Your task to perform on an android device: find snoozed emails in the gmail app Image 0: 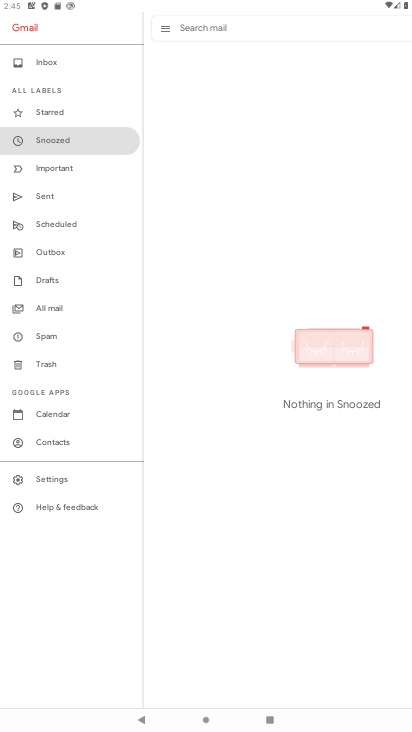
Step 0: press home button
Your task to perform on an android device: find snoozed emails in the gmail app Image 1: 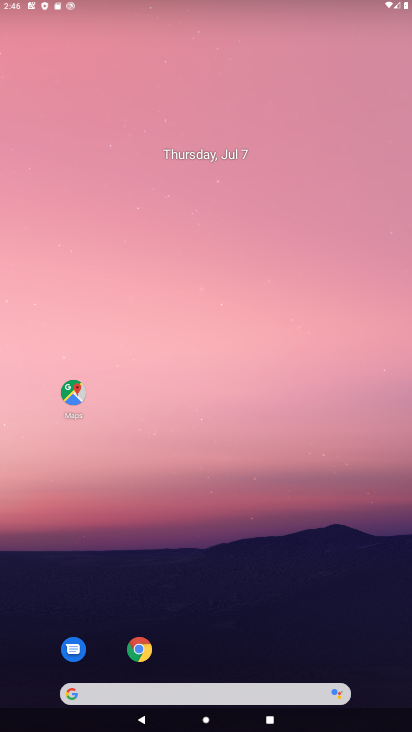
Step 1: drag from (167, 577) to (253, 47)
Your task to perform on an android device: find snoozed emails in the gmail app Image 2: 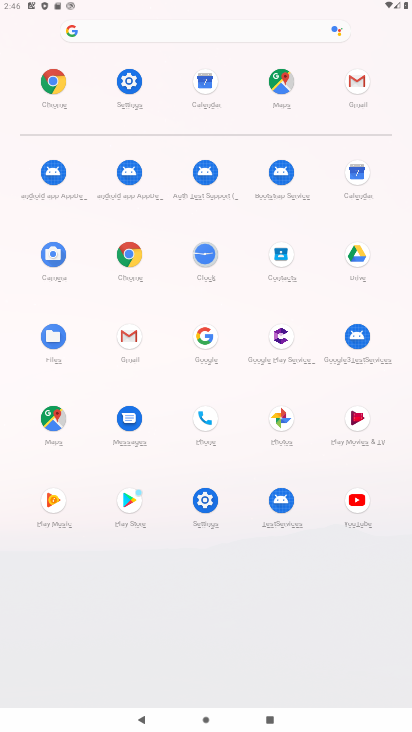
Step 2: click (136, 338)
Your task to perform on an android device: find snoozed emails in the gmail app Image 3: 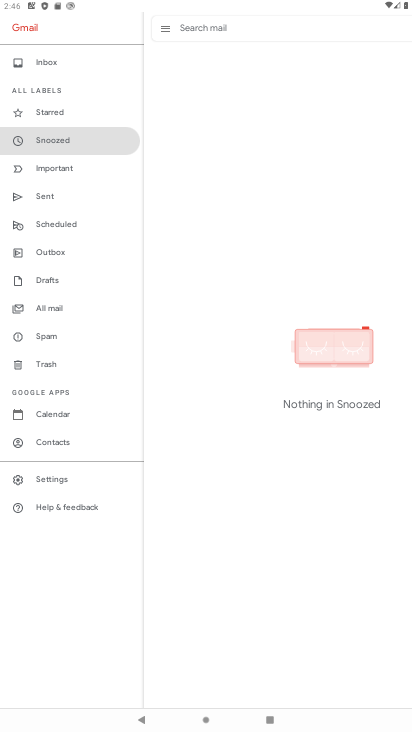
Step 3: click (82, 115)
Your task to perform on an android device: find snoozed emails in the gmail app Image 4: 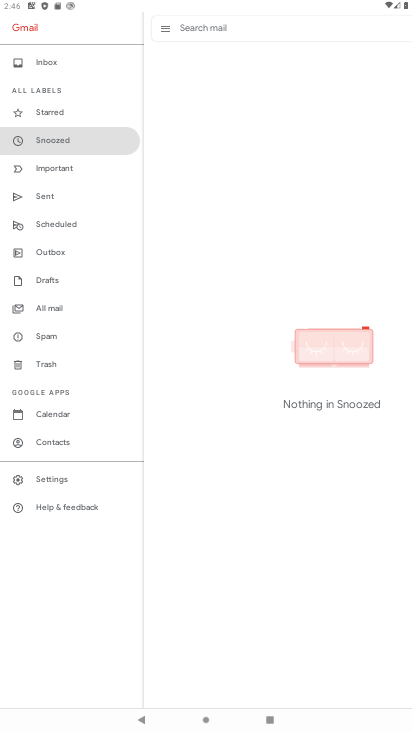
Step 4: click (76, 133)
Your task to perform on an android device: find snoozed emails in the gmail app Image 5: 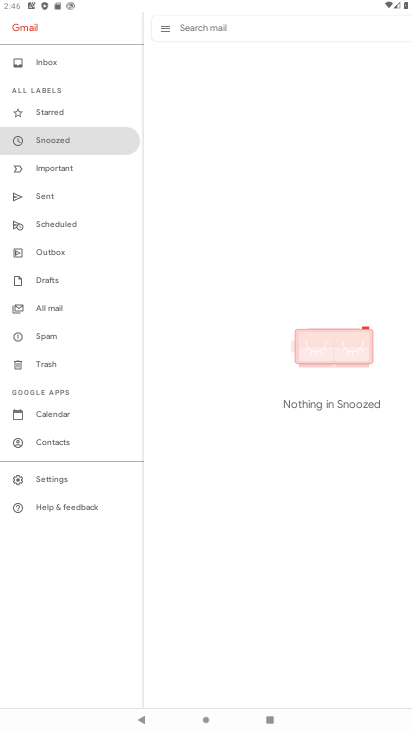
Step 5: task complete